Your task to perform on an android device: Open CNN.com Image 0: 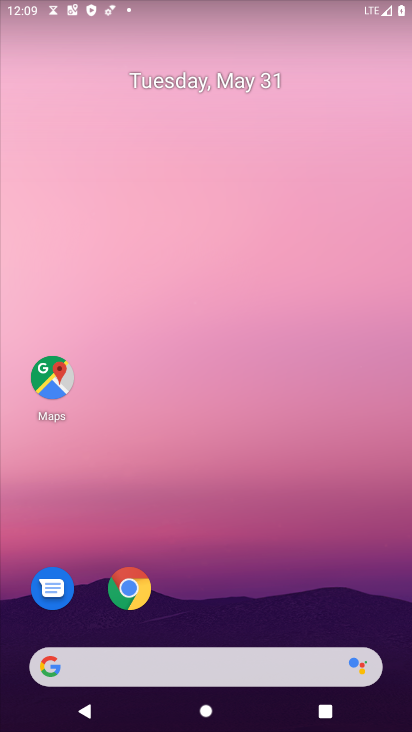
Step 0: click (129, 586)
Your task to perform on an android device: Open CNN.com Image 1: 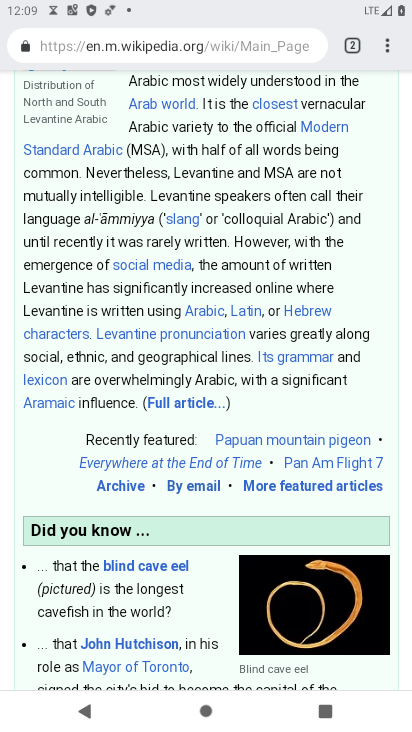
Step 1: click (348, 47)
Your task to perform on an android device: Open CNN.com Image 2: 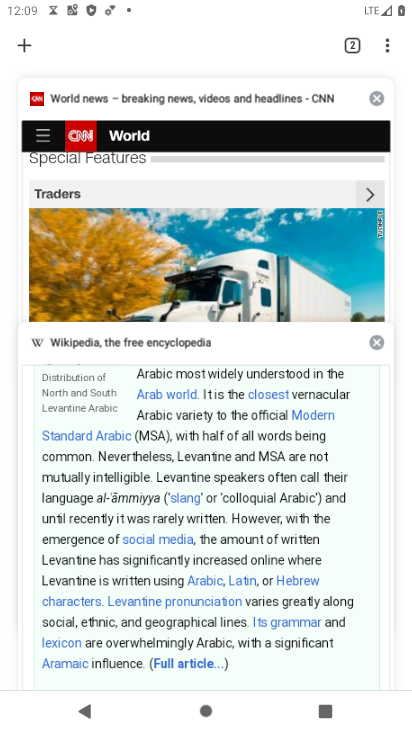
Step 2: click (378, 95)
Your task to perform on an android device: Open CNN.com Image 3: 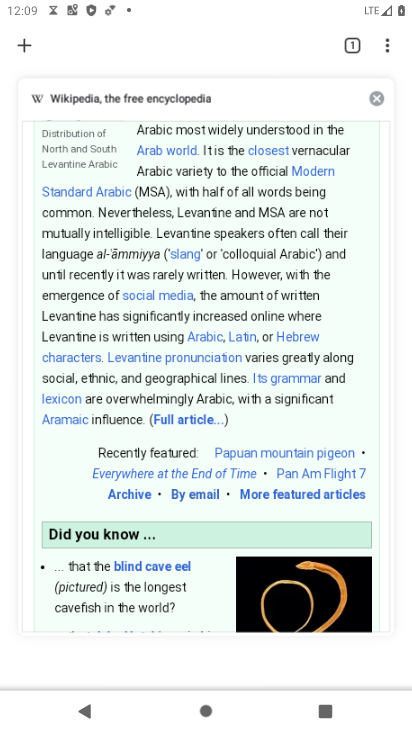
Step 3: click (33, 47)
Your task to perform on an android device: Open CNN.com Image 4: 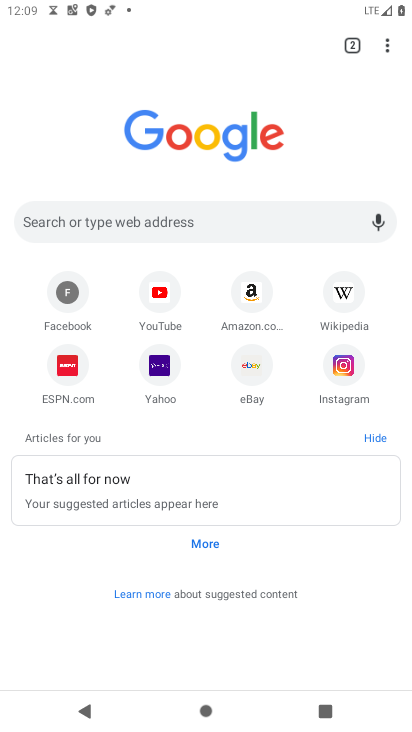
Step 4: click (91, 218)
Your task to perform on an android device: Open CNN.com Image 5: 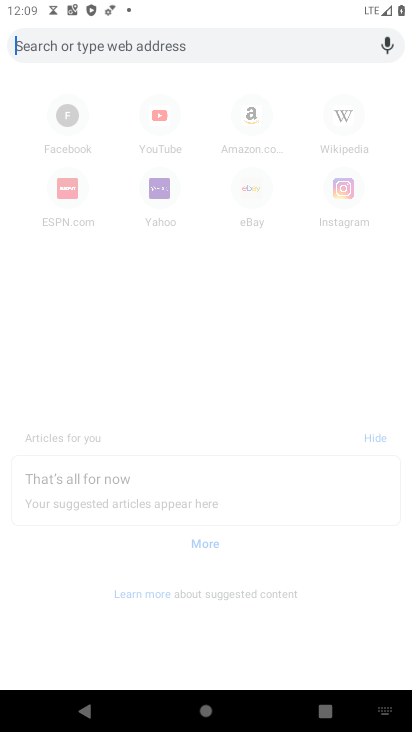
Step 5: type "cnn.com"
Your task to perform on an android device: Open CNN.com Image 6: 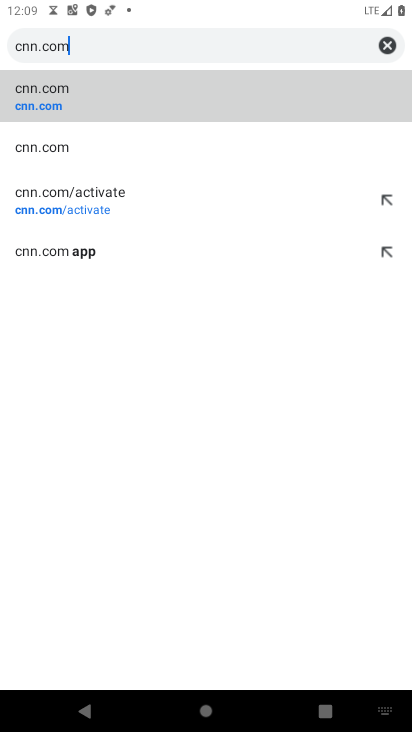
Step 6: click (81, 95)
Your task to perform on an android device: Open CNN.com Image 7: 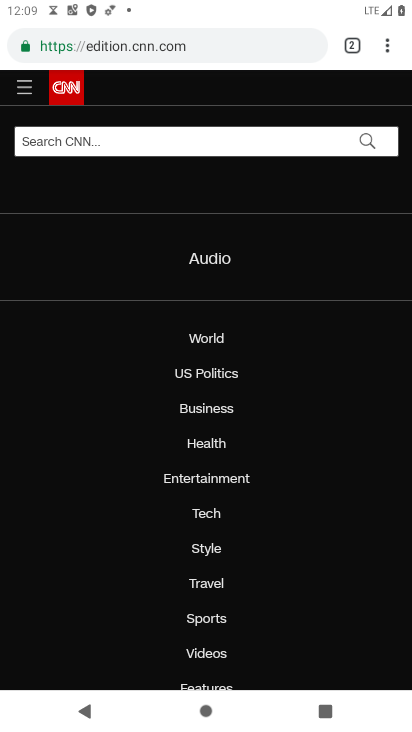
Step 7: click (221, 511)
Your task to perform on an android device: Open CNN.com Image 8: 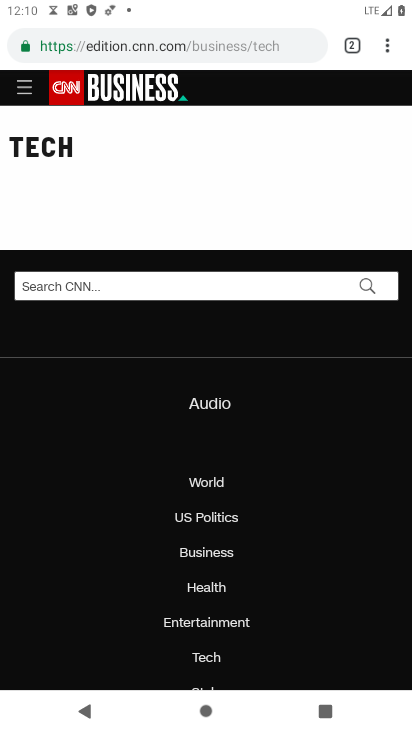
Step 8: task complete